Your task to perform on an android device: turn off data saver in the chrome app Image 0: 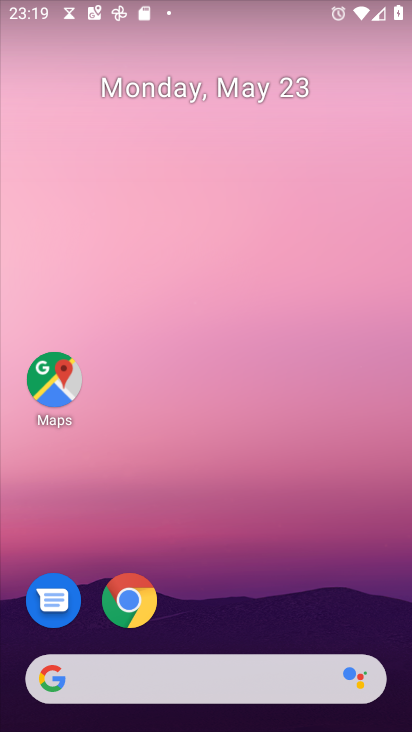
Step 0: click (130, 603)
Your task to perform on an android device: turn off data saver in the chrome app Image 1: 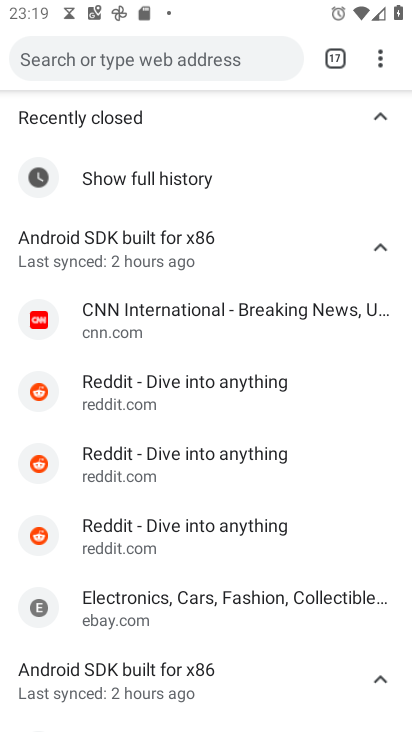
Step 1: click (382, 63)
Your task to perform on an android device: turn off data saver in the chrome app Image 2: 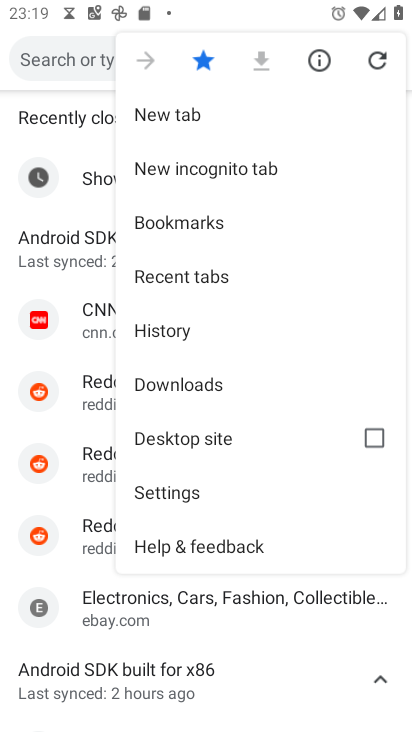
Step 2: click (180, 490)
Your task to perform on an android device: turn off data saver in the chrome app Image 3: 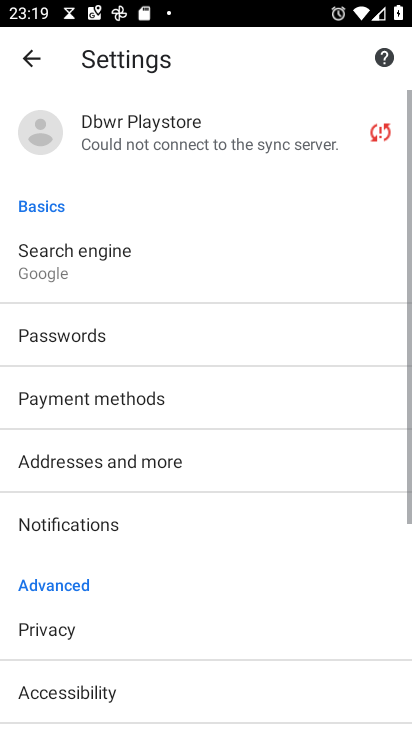
Step 3: drag from (103, 657) to (88, 333)
Your task to perform on an android device: turn off data saver in the chrome app Image 4: 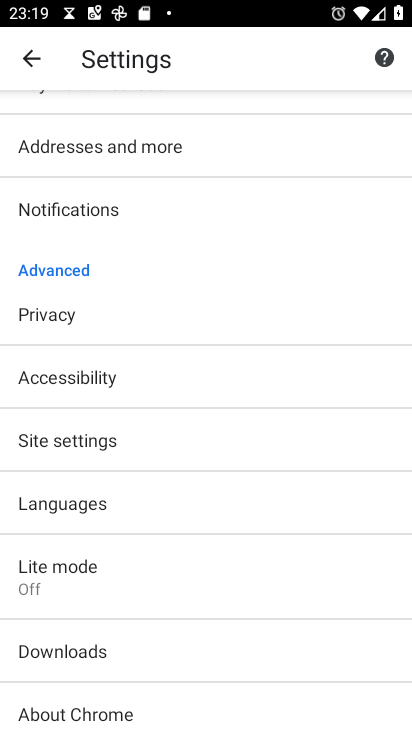
Step 4: click (55, 563)
Your task to perform on an android device: turn off data saver in the chrome app Image 5: 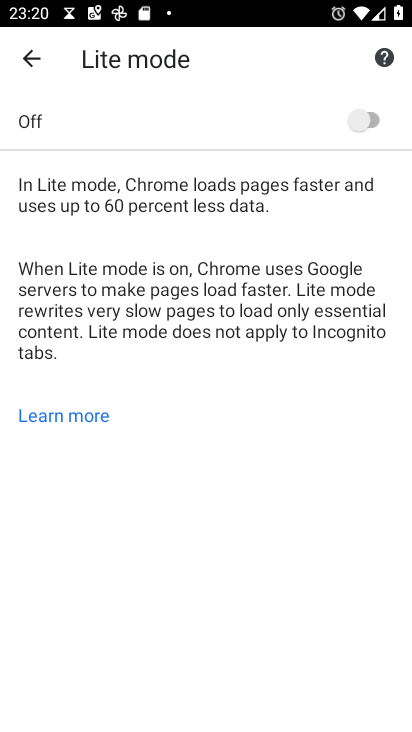
Step 5: task complete